Your task to perform on an android device: turn off javascript in the chrome app Image 0: 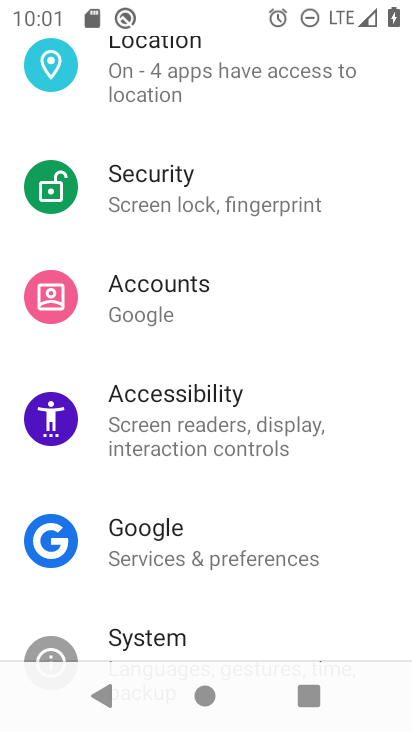
Step 0: press home button
Your task to perform on an android device: turn off javascript in the chrome app Image 1: 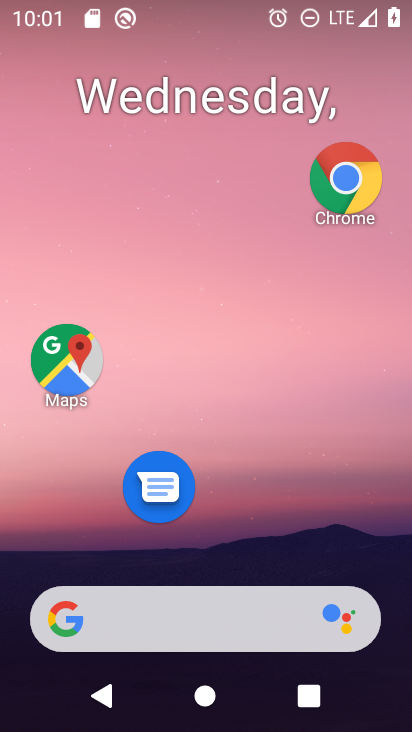
Step 1: click (365, 198)
Your task to perform on an android device: turn off javascript in the chrome app Image 2: 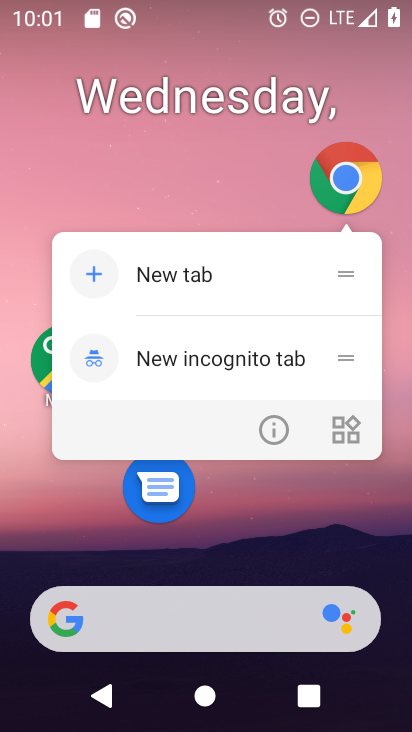
Step 2: click (366, 199)
Your task to perform on an android device: turn off javascript in the chrome app Image 3: 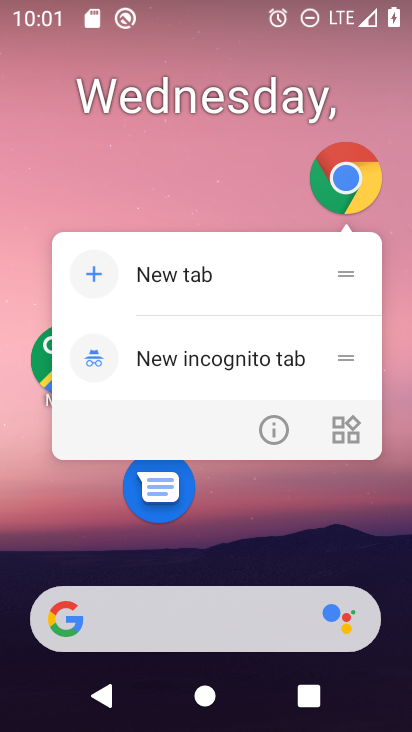
Step 3: click (351, 187)
Your task to perform on an android device: turn off javascript in the chrome app Image 4: 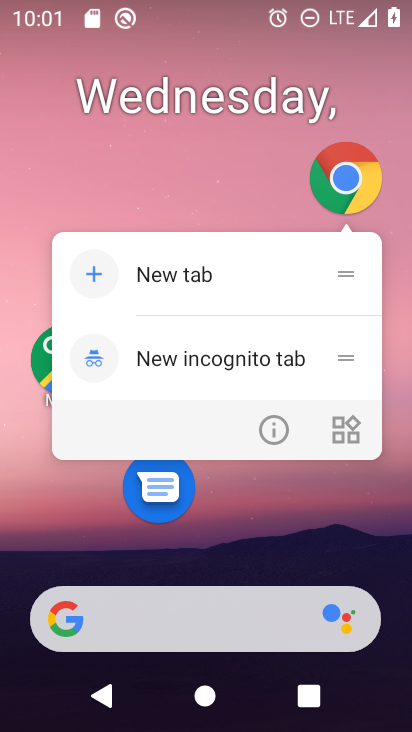
Step 4: click (345, 166)
Your task to perform on an android device: turn off javascript in the chrome app Image 5: 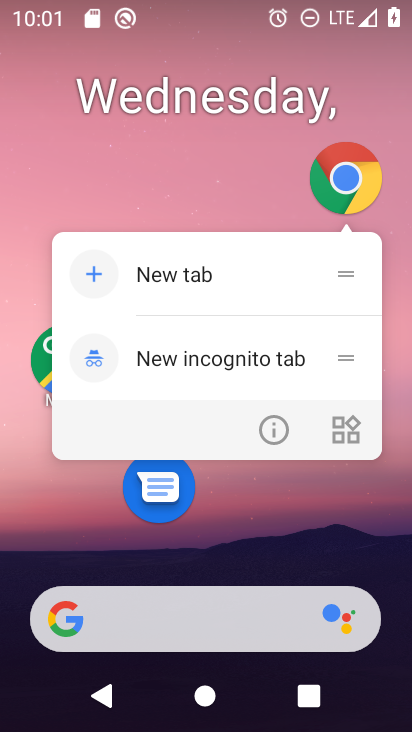
Step 5: click (345, 203)
Your task to perform on an android device: turn off javascript in the chrome app Image 6: 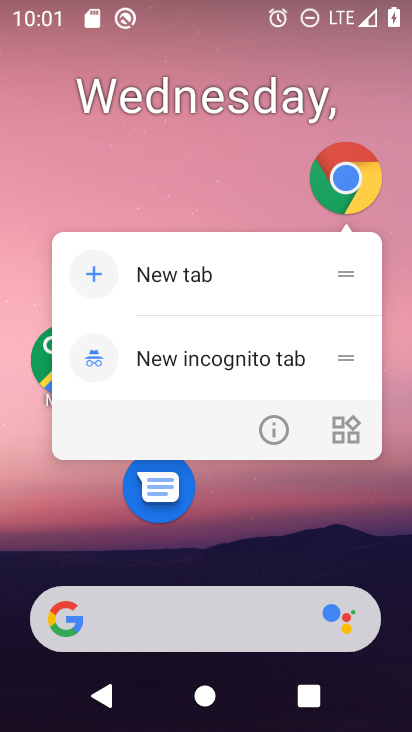
Step 6: click (349, 181)
Your task to perform on an android device: turn off javascript in the chrome app Image 7: 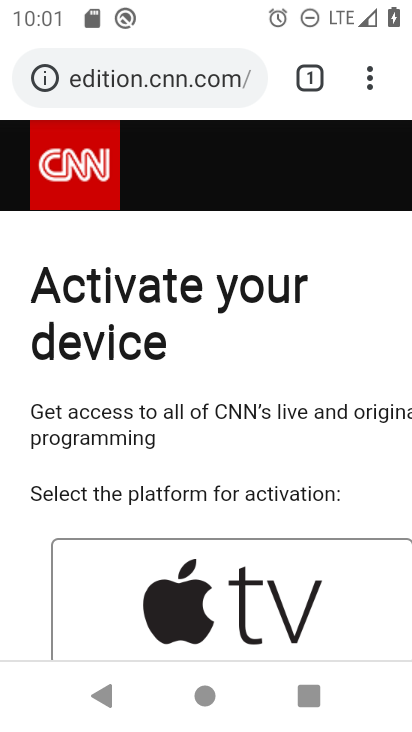
Step 7: click (367, 92)
Your task to perform on an android device: turn off javascript in the chrome app Image 8: 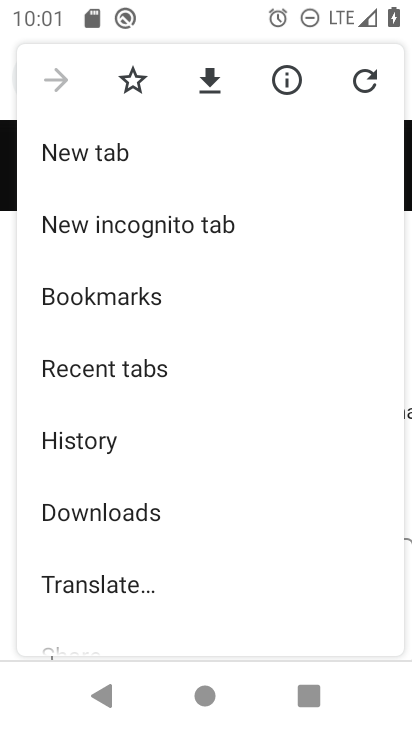
Step 8: drag from (235, 521) to (259, 348)
Your task to perform on an android device: turn off javascript in the chrome app Image 9: 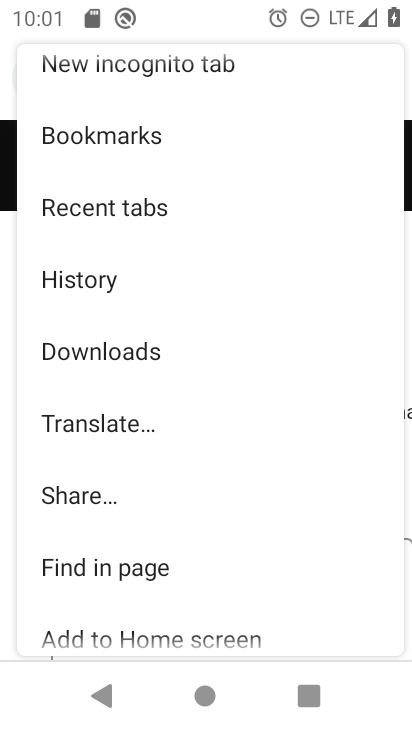
Step 9: drag from (203, 498) to (231, 320)
Your task to perform on an android device: turn off javascript in the chrome app Image 10: 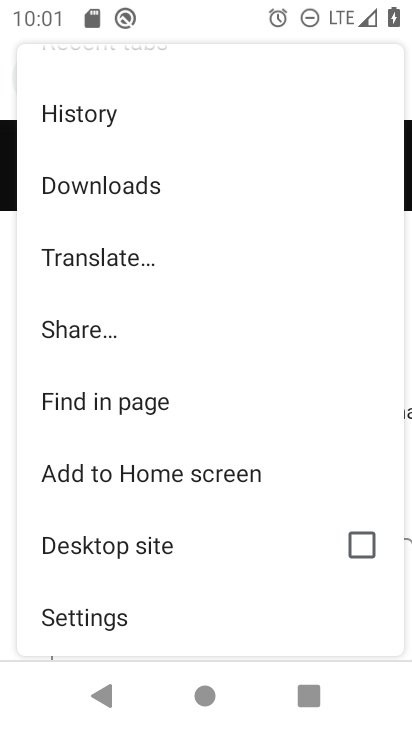
Step 10: drag from (205, 438) to (233, 237)
Your task to perform on an android device: turn off javascript in the chrome app Image 11: 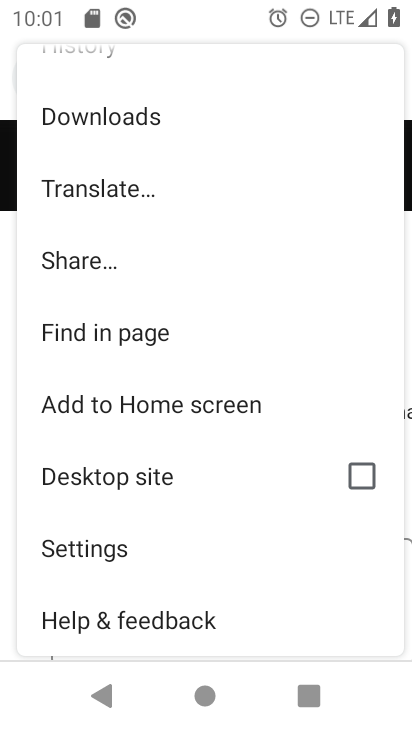
Step 11: click (95, 555)
Your task to perform on an android device: turn off javascript in the chrome app Image 12: 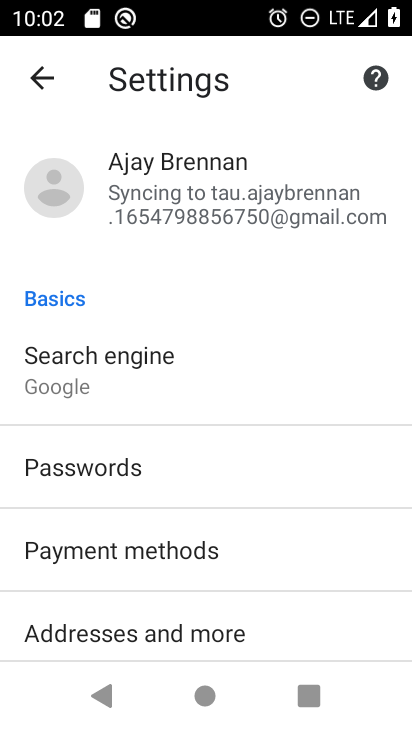
Step 12: drag from (172, 580) to (168, 207)
Your task to perform on an android device: turn off javascript in the chrome app Image 13: 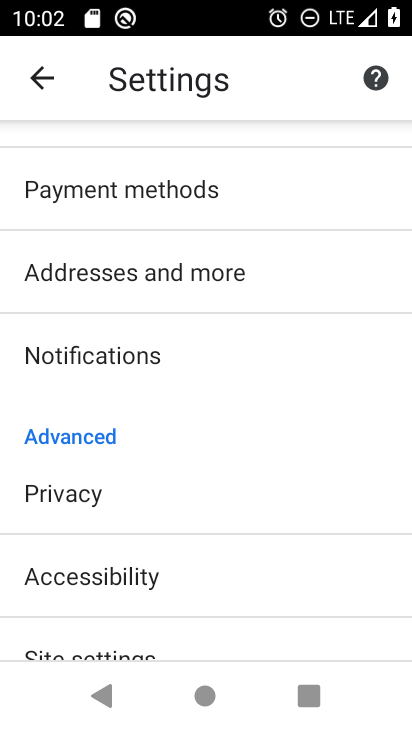
Step 13: drag from (119, 567) to (160, 343)
Your task to perform on an android device: turn off javascript in the chrome app Image 14: 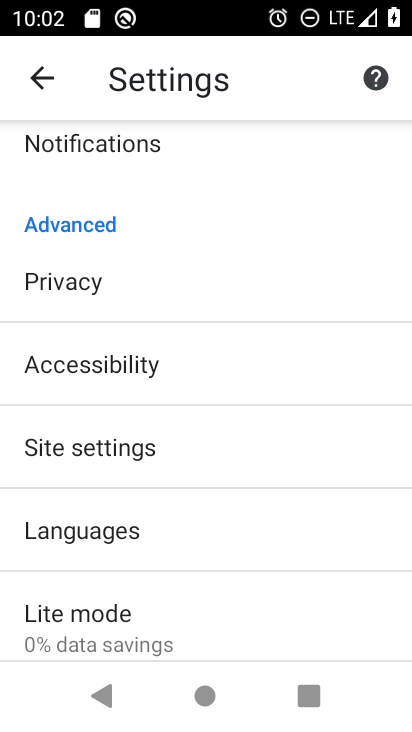
Step 14: click (124, 456)
Your task to perform on an android device: turn off javascript in the chrome app Image 15: 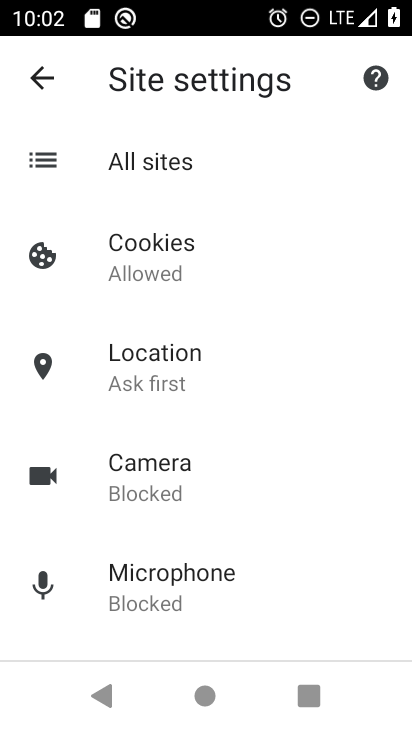
Step 15: drag from (153, 423) to (192, 148)
Your task to perform on an android device: turn off javascript in the chrome app Image 16: 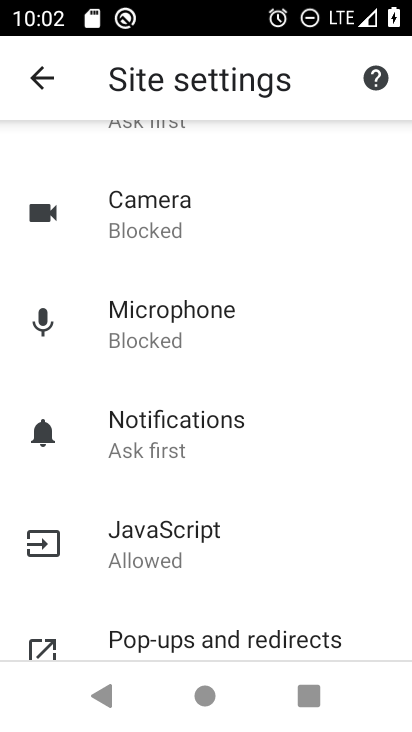
Step 16: click (179, 546)
Your task to perform on an android device: turn off javascript in the chrome app Image 17: 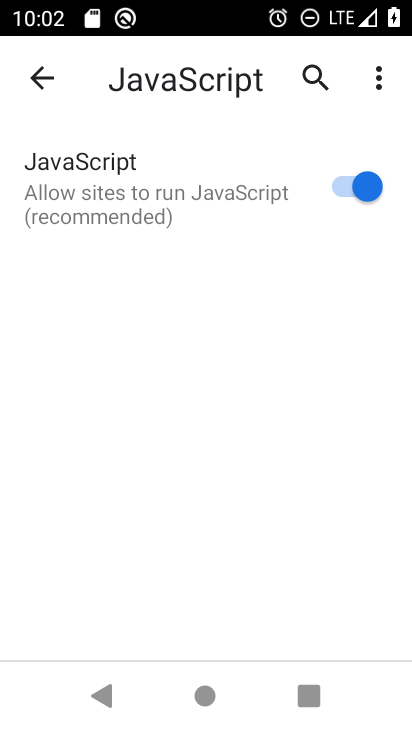
Step 17: click (342, 190)
Your task to perform on an android device: turn off javascript in the chrome app Image 18: 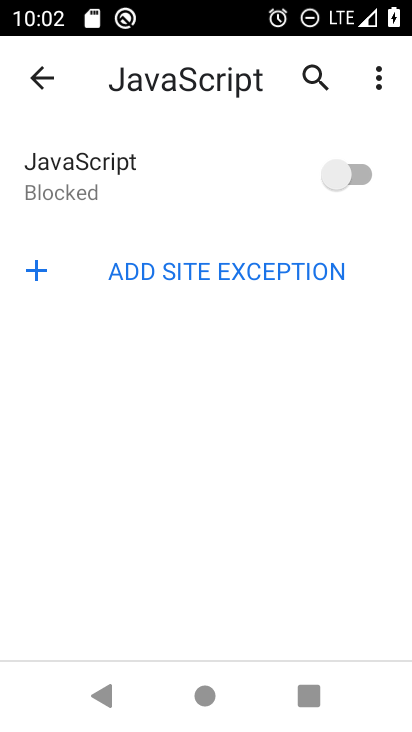
Step 18: task complete